Your task to perform on an android device: Show me the alarms in the clock app Image 0: 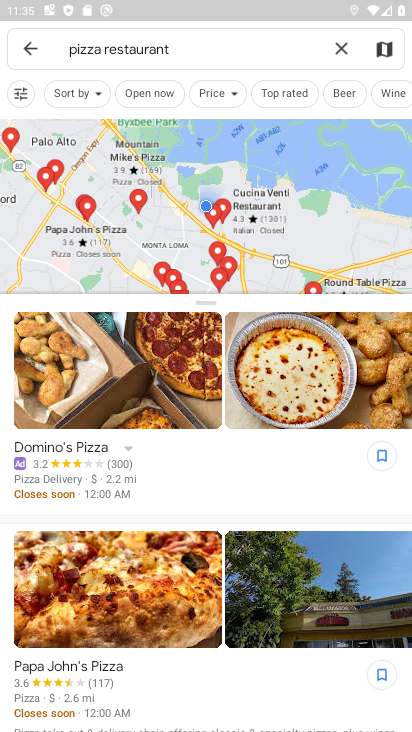
Step 0: press home button
Your task to perform on an android device: Show me the alarms in the clock app Image 1: 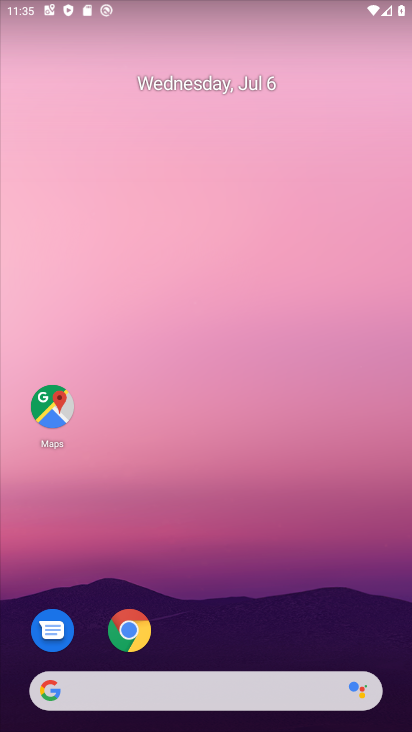
Step 1: drag from (291, 619) to (181, 57)
Your task to perform on an android device: Show me the alarms in the clock app Image 2: 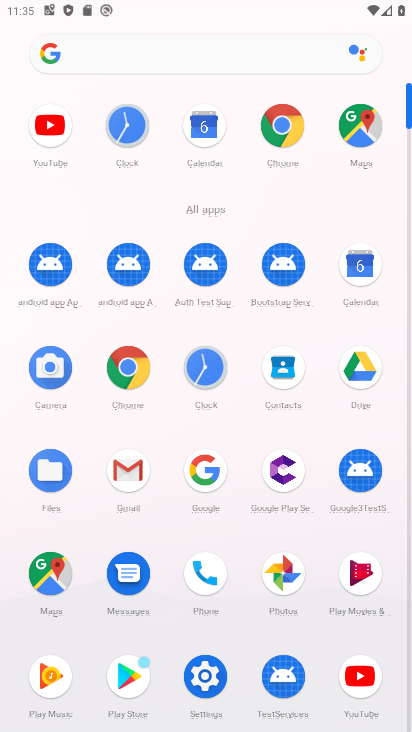
Step 2: click (133, 132)
Your task to perform on an android device: Show me the alarms in the clock app Image 3: 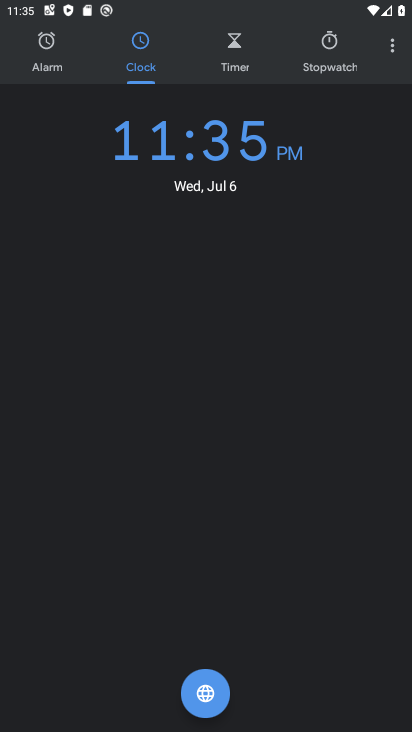
Step 3: click (61, 52)
Your task to perform on an android device: Show me the alarms in the clock app Image 4: 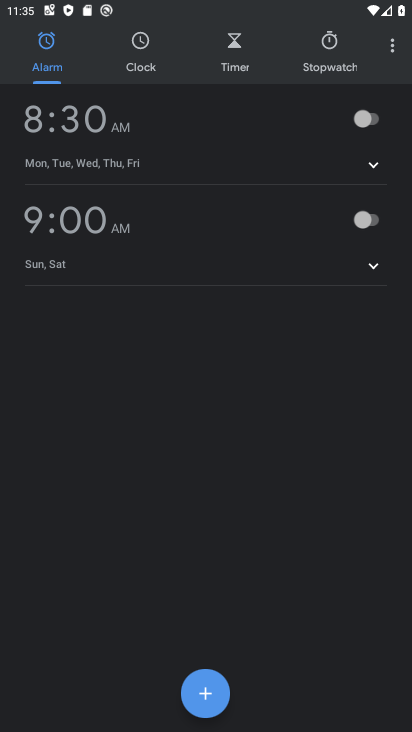
Step 4: click (209, 685)
Your task to perform on an android device: Show me the alarms in the clock app Image 5: 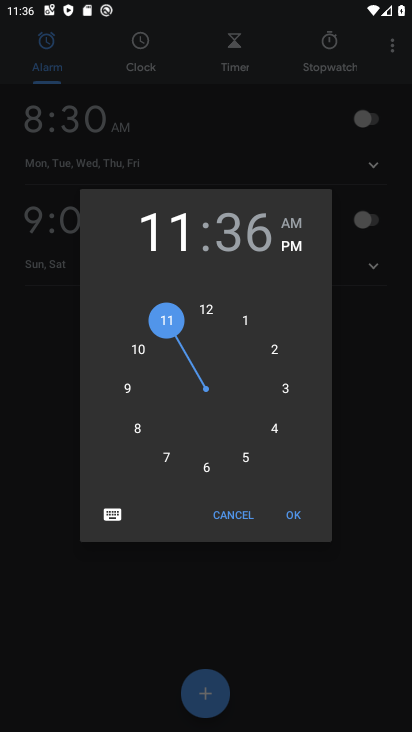
Step 5: click (293, 520)
Your task to perform on an android device: Show me the alarms in the clock app Image 6: 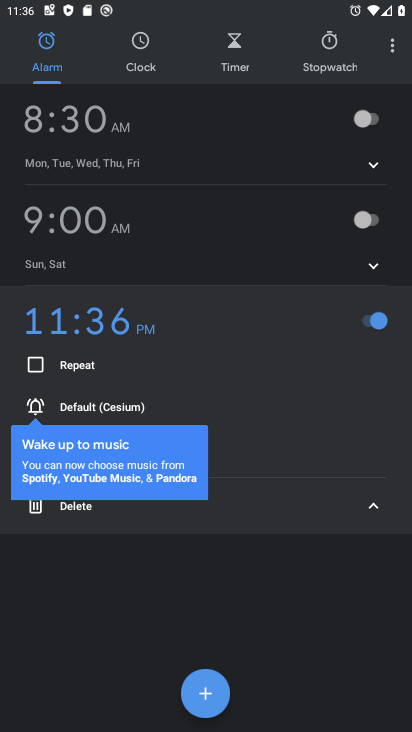
Step 6: task complete